Your task to perform on an android device: Open the calendar app, open the side menu, and click the "Day" option Image 0: 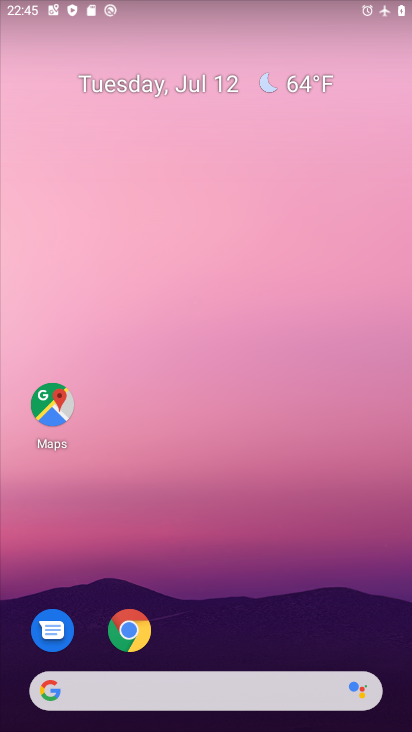
Step 0: drag from (188, 668) to (115, 66)
Your task to perform on an android device: Open the calendar app, open the side menu, and click the "Day" option Image 1: 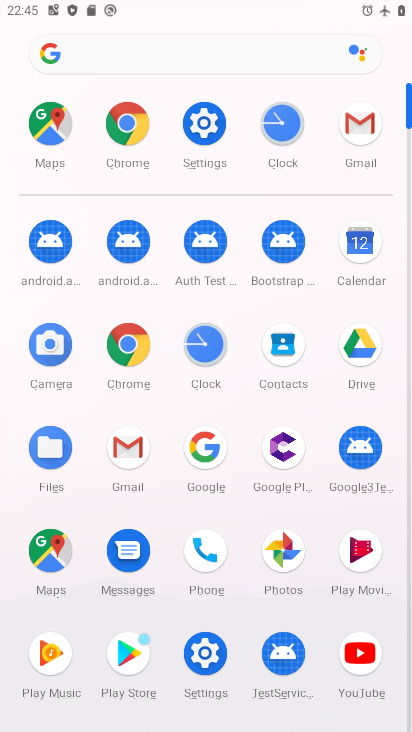
Step 1: click (374, 246)
Your task to perform on an android device: Open the calendar app, open the side menu, and click the "Day" option Image 2: 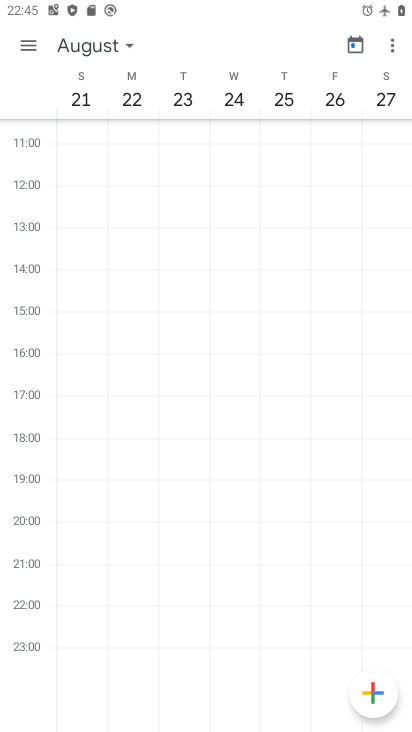
Step 2: click (30, 39)
Your task to perform on an android device: Open the calendar app, open the side menu, and click the "Day" option Image 3: 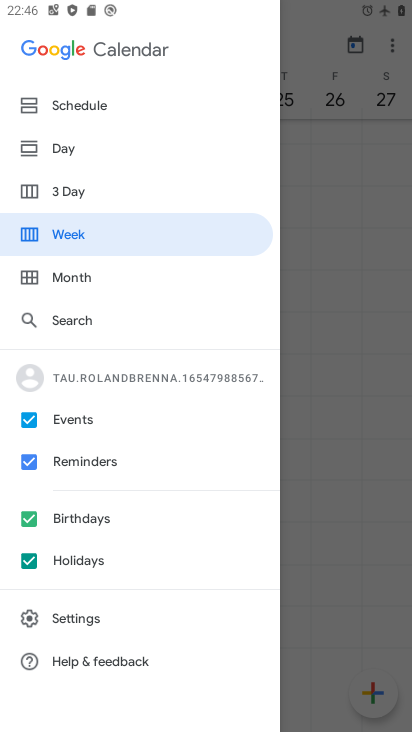
Step 3: click (70, 149)
Your task to perform on an android device: Open the calendar app, open the side menu, and click the "Day" option Image 4: 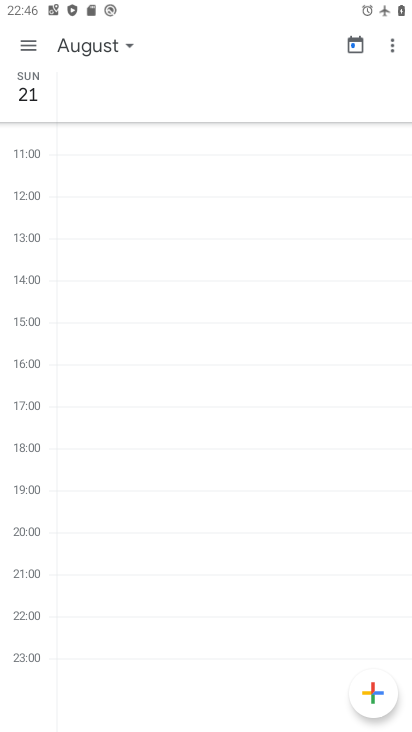
Step 4: task complete